Your task to perform on an android device: toggle priority inbox in the gmail app Image 0: 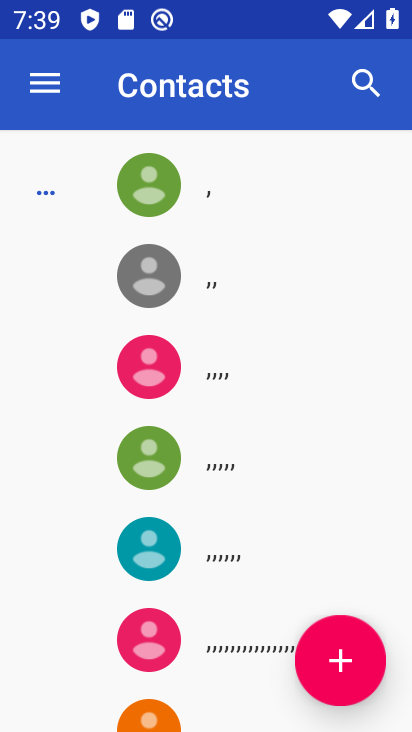
Step 0: press home button
Your task to perform on an android device: toggle priority inbox in the gmail app Image 1: 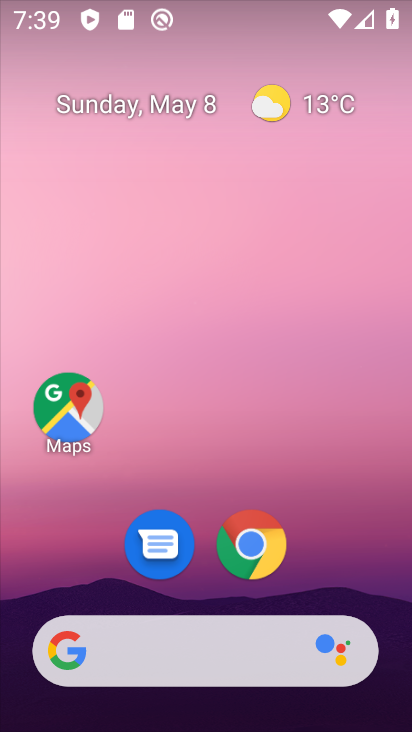
Step 1: drag from (331, 568) to (199, 29)
Your task to perform on an android device: toggle priority inbox in the gmail app Image 2: 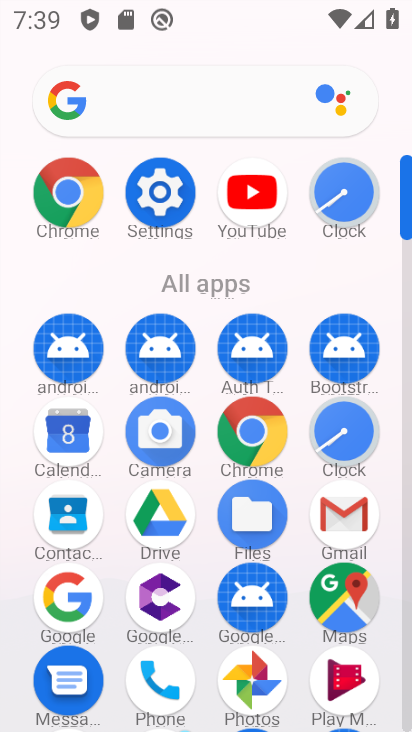
Step 2: click (346, 515)
Your task to perform on an android device: toggle priority inbox in the gmail app Image 3: 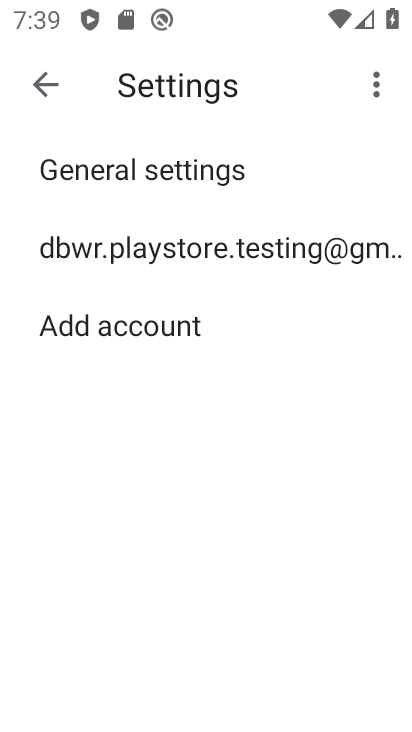
Step 3: click (96, 246)
Your task to perform on an android device: toggle priority inbox in the gmail app Image 4: 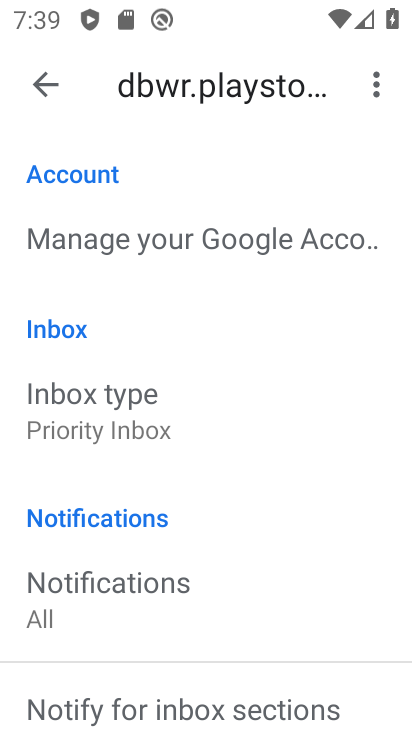
Step 4: click (105, 408)
Your task to perform on an android device: toggle priority inbox in the gmail app Image 5: 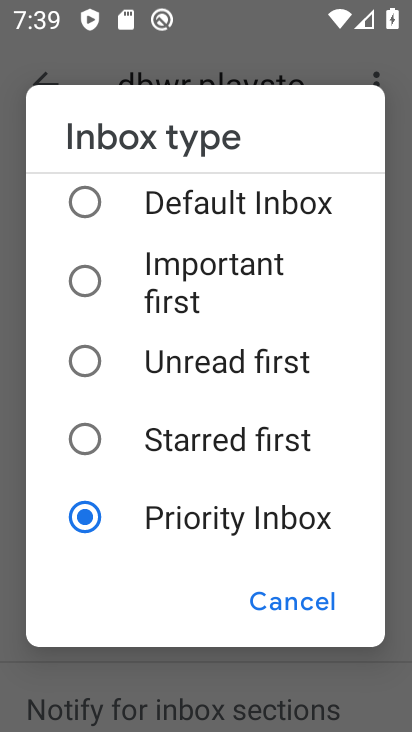
Step 5: click (77, 203)
Your task to perform on an android device: toggle priority inbox in the gmail app Image 6: 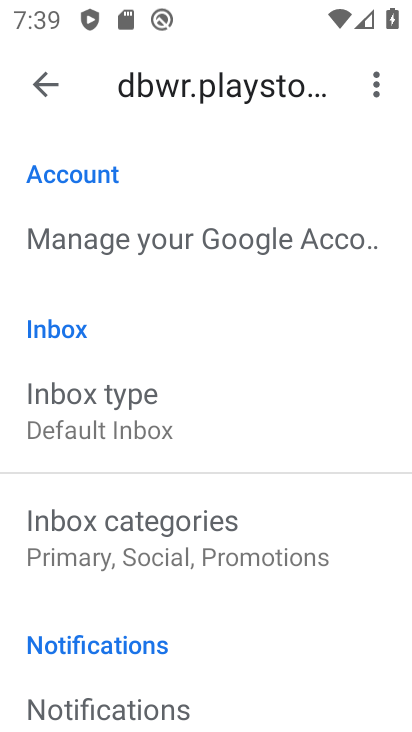
Step 6: task complete